Your task to perform on an android device: toggle airplane mode Image 0: 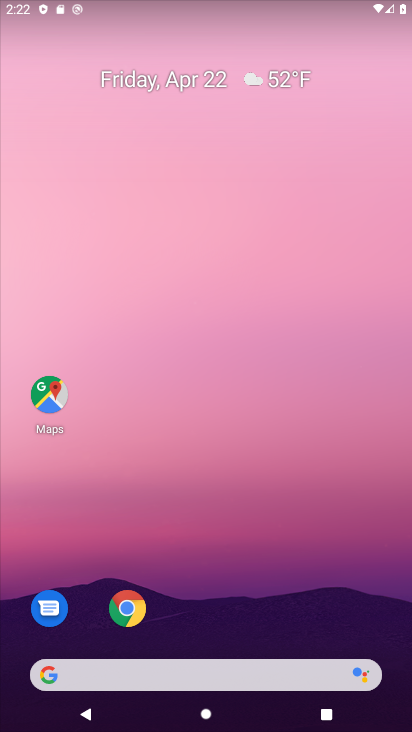
Step 0: drag from (257, 631) to (290, 148)
Your task to perform on an android device: toggle airplane mode Image 1: 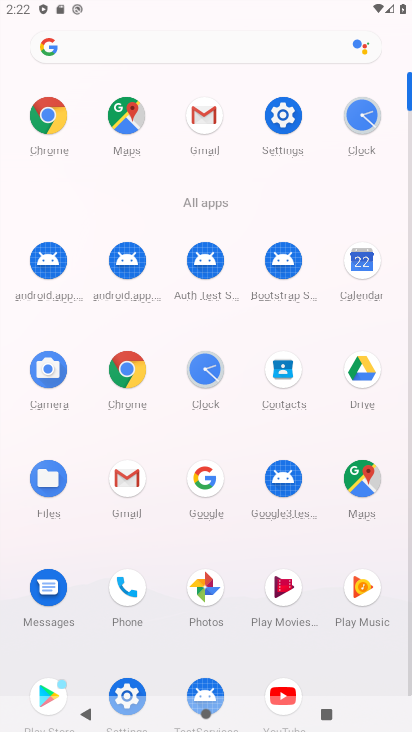
Step 1: click (285, 120)
Your task to perform on an android device: toggle airplane mode Image 2: 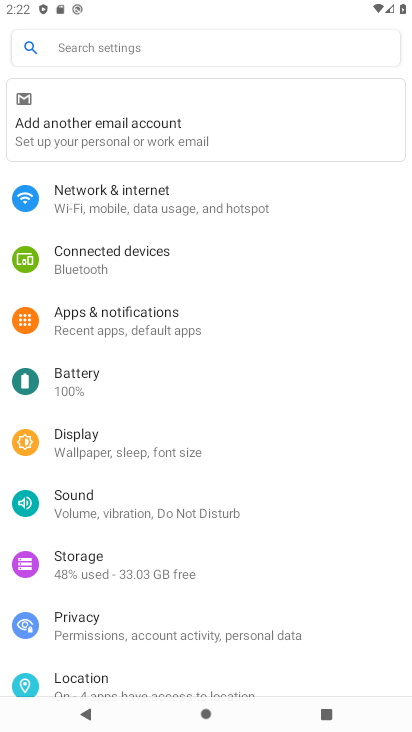
Step 2: click (183, 198)
Your task to perform on an android device: toggle airplane mode Image 3: 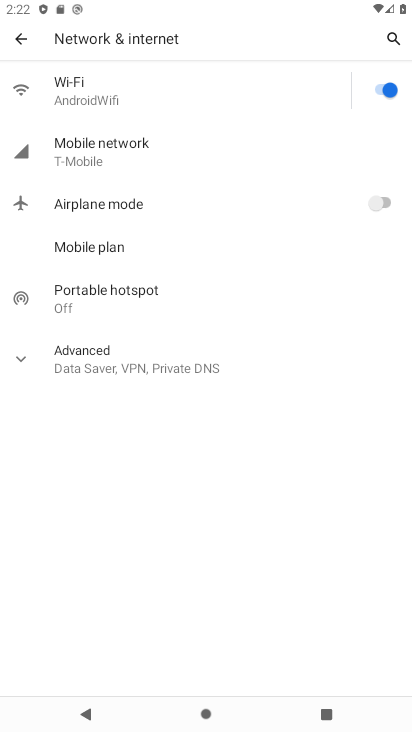
Step 3: click (388, 201)
Your task to perform on an android device: toggle airplane mode Image 4: 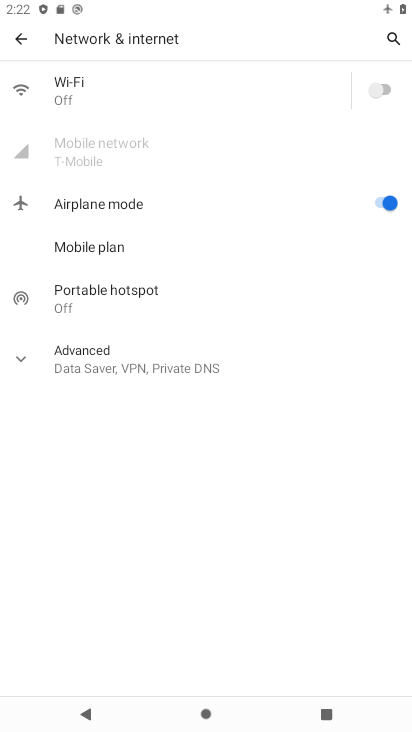
Step 4: task complete